Your task to perform on an android device: turn on airplane mode Image 0: 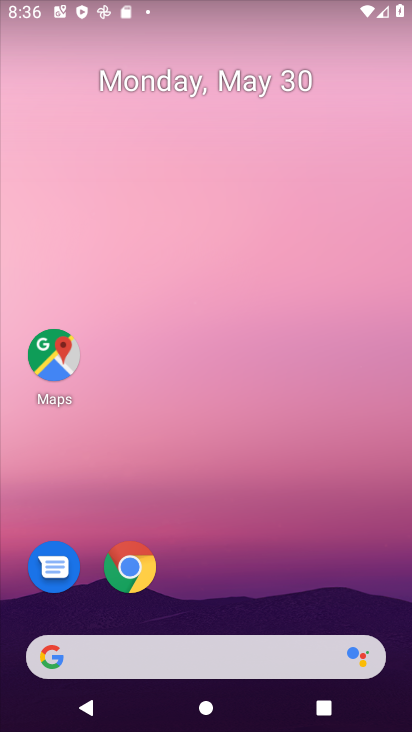
Step 0: drag from (302, 607) to (283, 367)
Your task to perform on an android device: turn on airplane mode Image 1: 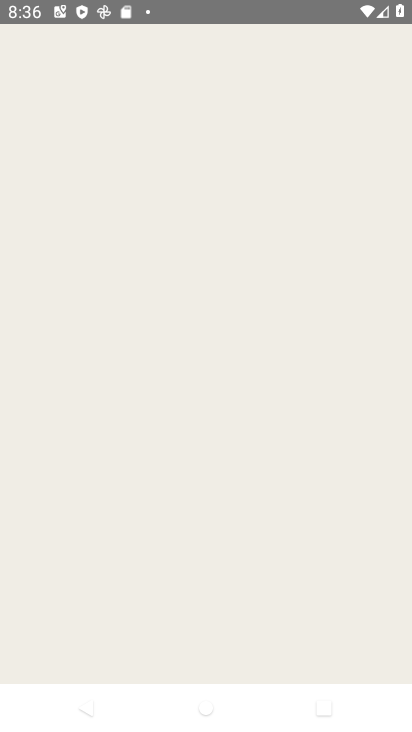
Step 1: press home button
Your task to perform on an android device: turn on airplane mode Image 2: 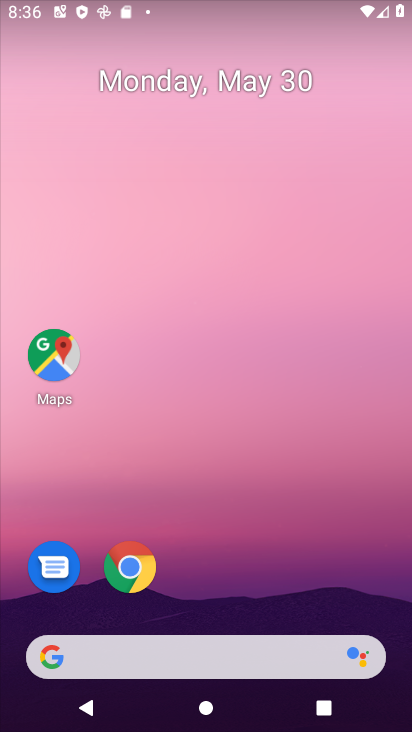
Step 2: drag from (252, 609) to (219, 101)
Your task to perform on an android device: turn on airplane mode Image 3: 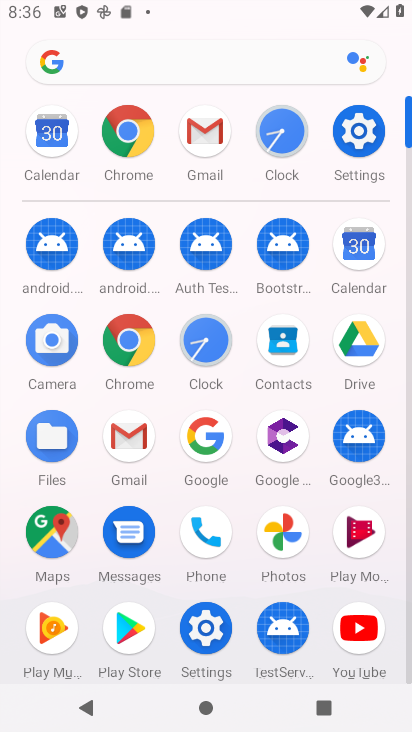
Step 3: click (362, 164)
Your task to perform on an android device: turn on airplane mode Image 4: 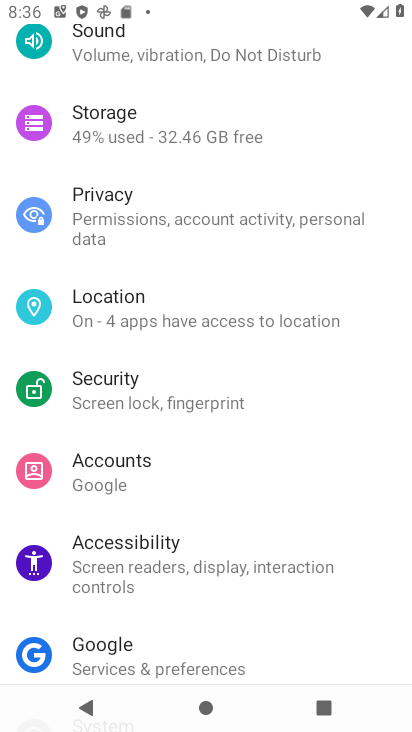
Step 4: drag from (267, 223) to (400, 513)
Your task to perform on an android device: turn on airplane mode Image 5: 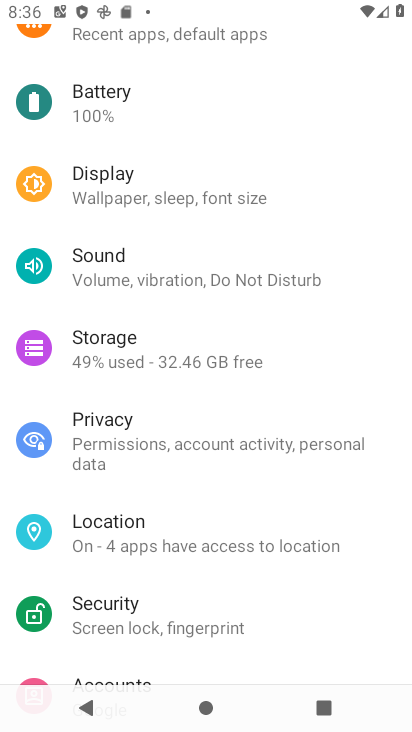
Step 5: drag from (178, 132) to (280, 409)
Your task to perform on an android device: turn on airplane mode Image 6: 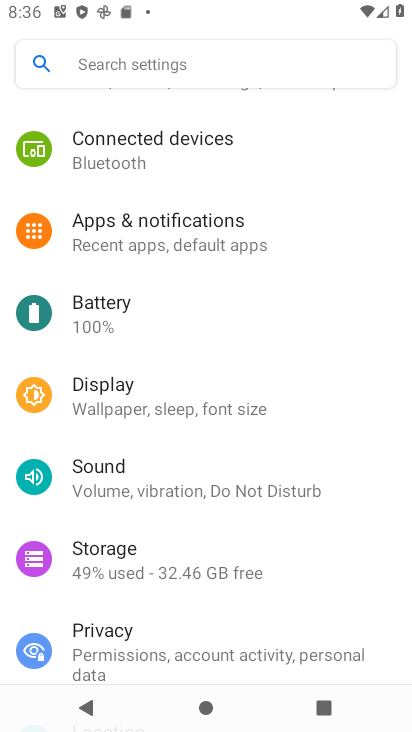
Step 6: drag from (182, 147) to (329, 498)
Your task to perform on an android device: turn on airplane mode Image 7: 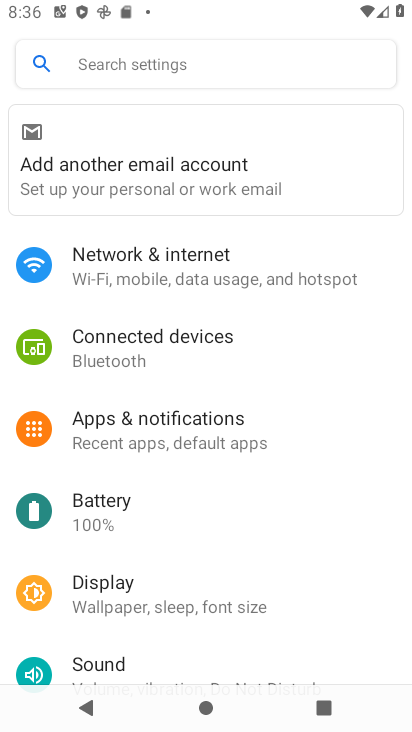
Step 7: click (255, 287)
Your task to perform on an android device: turn on airplane mode Image 8: 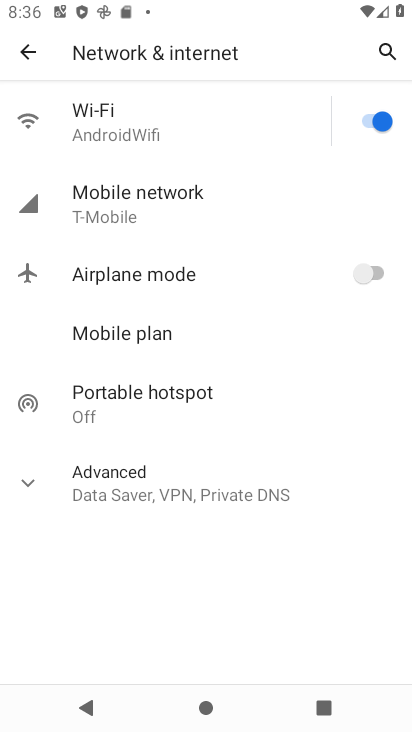
Step 8: click (261, 262)
Your task to perform on an android device: turn on airplane mode Image 9: 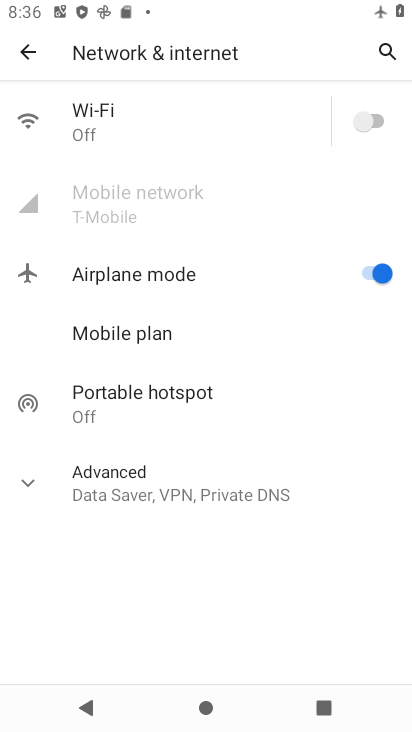
Step 9: task complete